Your task to perform on an android device: turn off improve location accuracy Image 0: 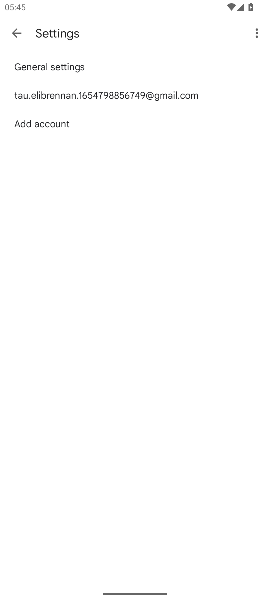
Step 0: press home button
Your task to perform on an android device: turn off improve location accuracy Image 1: 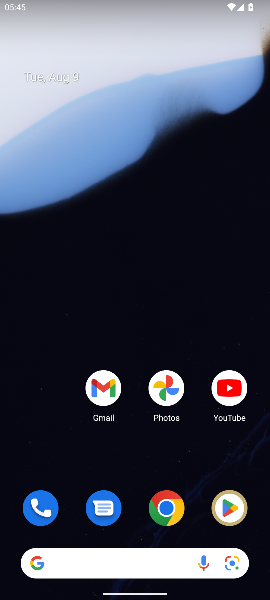
Step 1: drag from (126, 454) to (169, 0)
Your task to perform on an android device: turn off improve location accuracy Image 2: 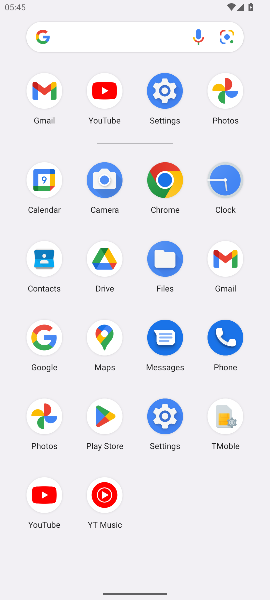
Step 2: click (163, 94)
Your task to perform on an android device: turn off improve location accuracy Image 3: 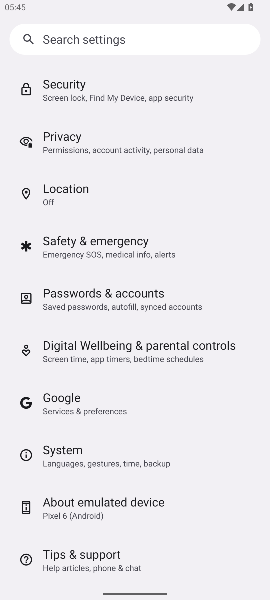
Step 3: click (93, 201)
Your task to perform on an android device: turn off improve location accuracy Image 4: 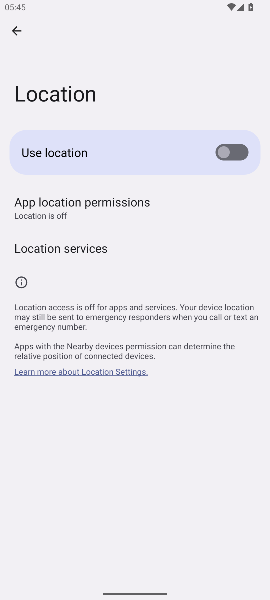
Step 4: click (63, 251)
Your task to perform on an android device: turn off improve location accuracy Image 5: 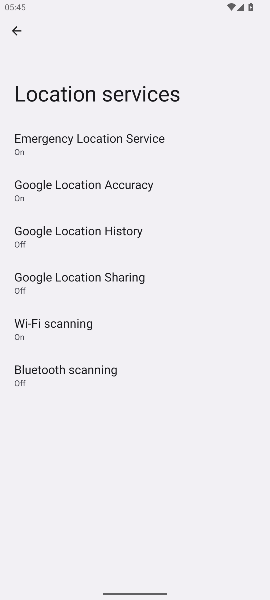
Step 5: click (105, 202)
Your task to perform on an android device: turn off improve location accuracy Image 6: 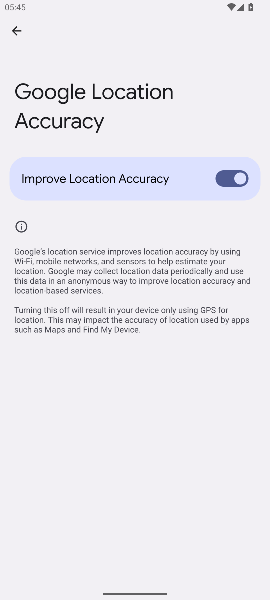
Step 6: click (230, 173)
Your task to perform on an android device: turn off improve location accuracy Image 7: 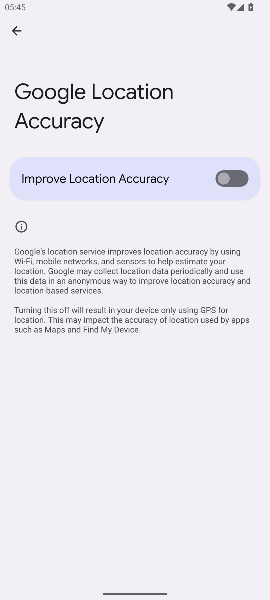
Step 7: task complete